Your task to perform on an android device: delete a single message in the gmail app Image 0: 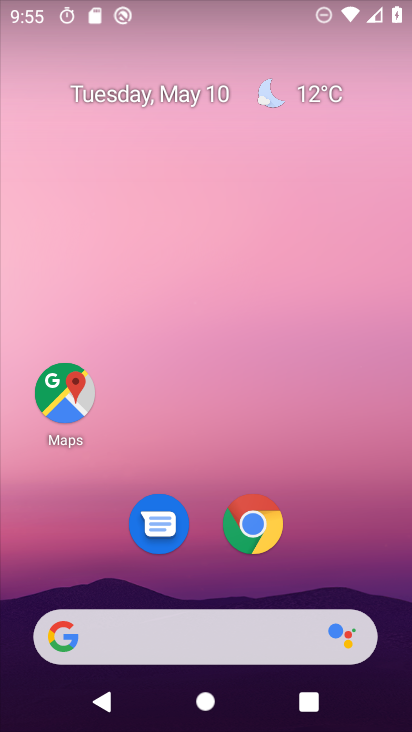
Step 0: drag from (260, 471) to (246, 59)
Your task to perform on an android device: delete a single message in the gmail app Image 1: 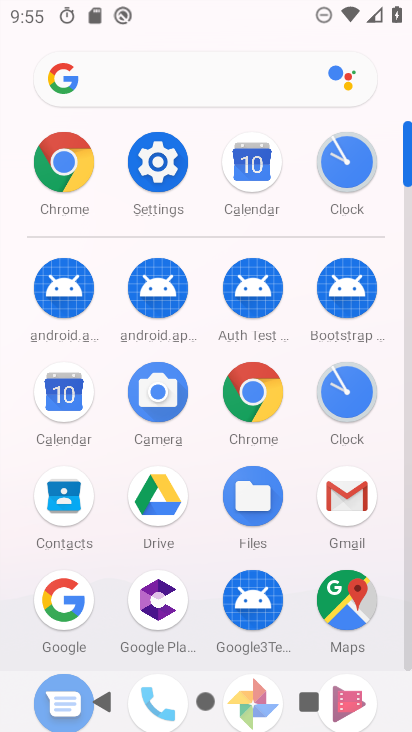
Step 1: click (345, 490)
Your task to perform on an android device: delete a single message in the gmail app Image 2: 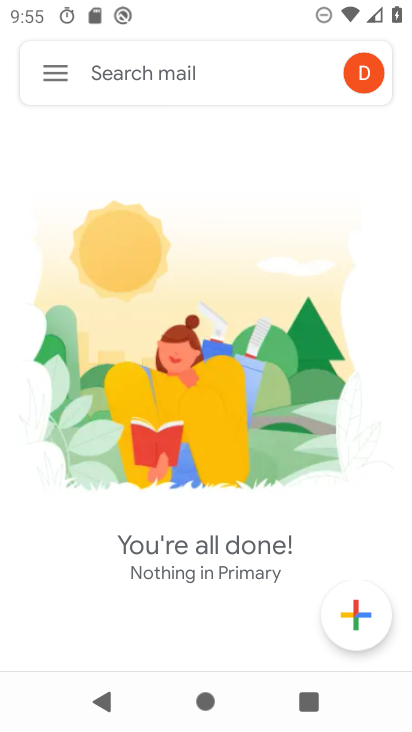
Step 2: click (59, 72)
Your task to perform on an android device: delete a single message in the gmail app Image 3: 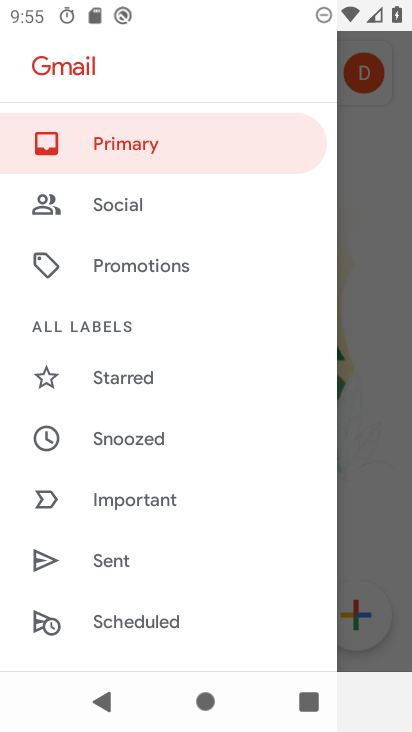
Step 3: drag from (206, 520) to (206, 68)
Your task to perform on an android device: delete a single message in the gmail app Image 4: 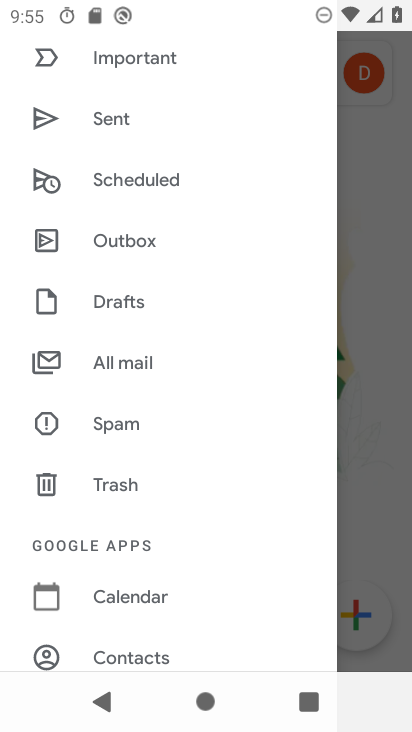
Step 4: click (172, 349)
Your task to perform on an android device: delete a single message in the gmail app Image 5: 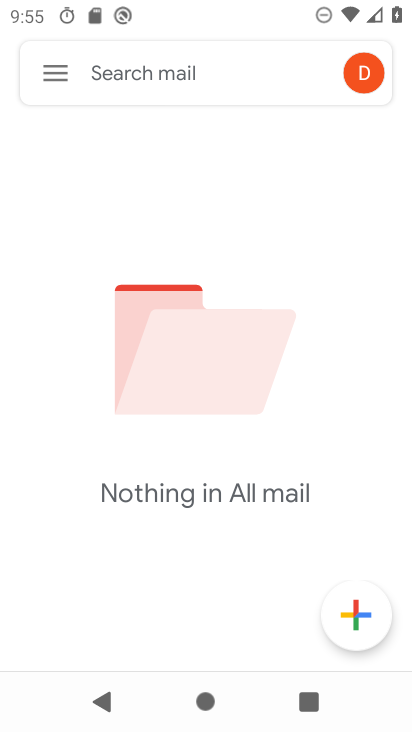
Step 5: task complete